Your task to perform on an android device: Is it going to rain this weekend? Image 0: 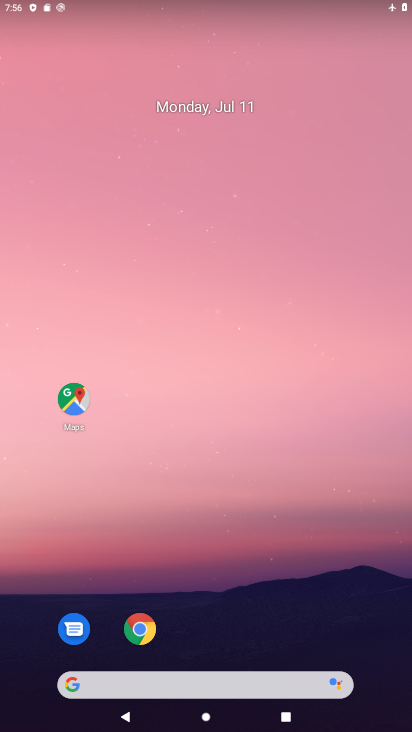
Step 0: click (192, 670)
Your task to perform on an android device: Is it going to rain this weekend? Image 1: 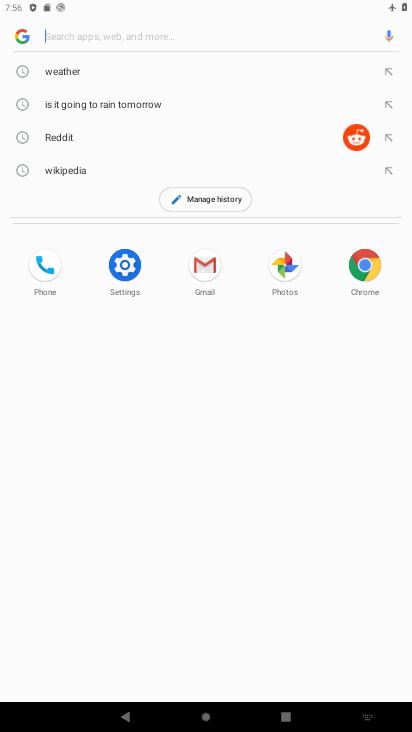
Step 1: click (58, 66)
Your task to perform on an android device: Is it going to rain this weekend? Image 2: 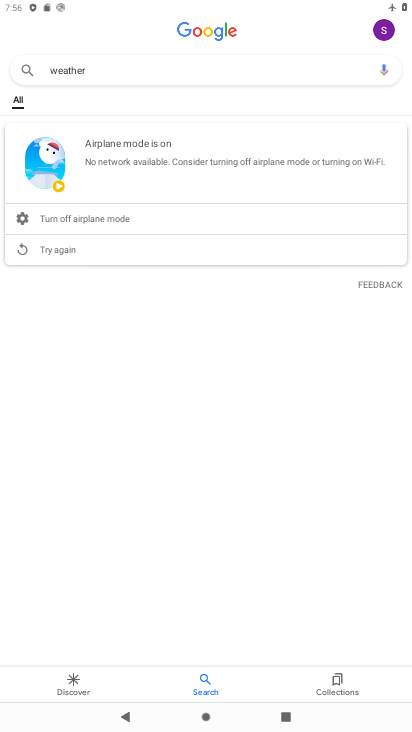
Step 2: click (51, 252)
Your task to perform on an android device: Is it going to rain this weekend? Image 3: 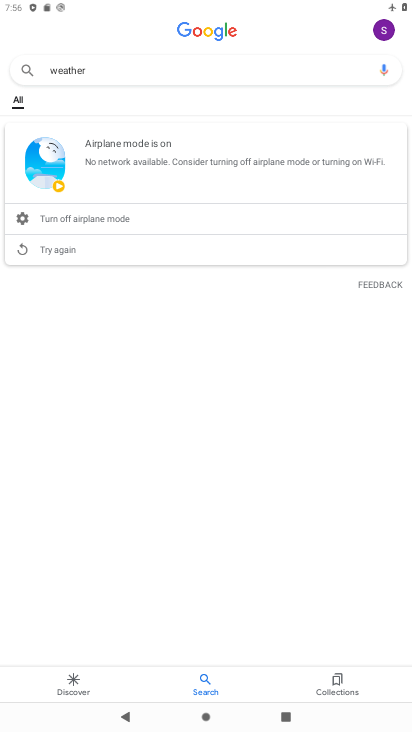
Step 3: click (51, 252)
Your task to perform on an android device: Is it going to rain this weekend? Image 4: 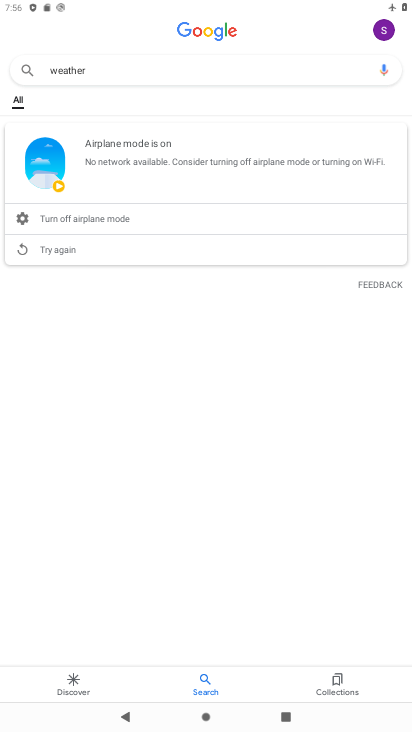
Step 4: task complete